Your task to perform on an android device: open app "Indeed Job Search" (install if not already installed) and enter user name: "quixotic@inbox.com" and password: "microphones" Image 0: 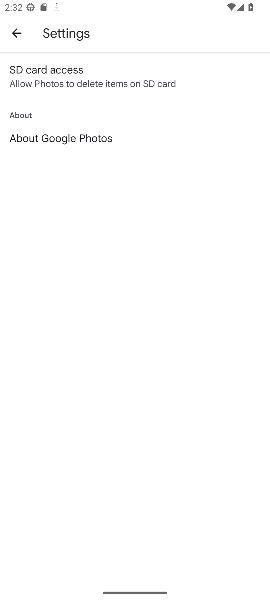
Step 0: press home button
Your task to perform on an android device: open app "Indeed Job Search" (install if not already installed) and enter user name: "quixotic@inbox.com" and password: "microphones" Image 1: 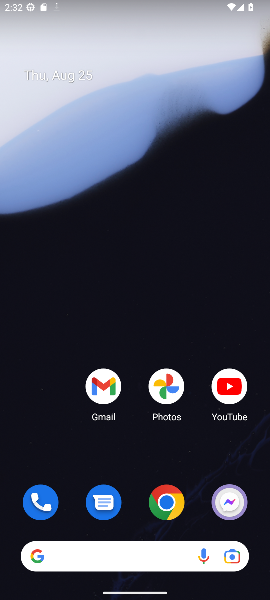
Step 1: drag from (131, 461) to (191, 53)
Your task to perform on an android device: open app "Indeed Job Search" (install if not already installed) and enter user name: "quixotic@inbox.com" and password: "microphones" Image 2: 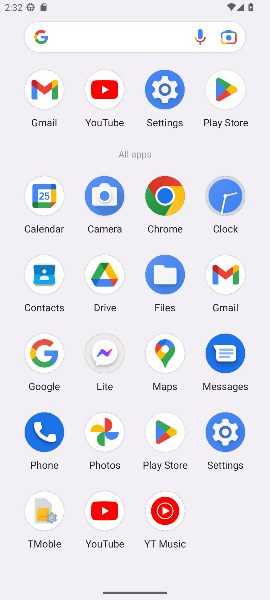
Step 2: click (225, 107)
Your task to perform on an android device: open app "Indeed Job Search" (install if not already installed) and enter user name: "quixotic@inbox.com" and password: "microphones" Image 3: 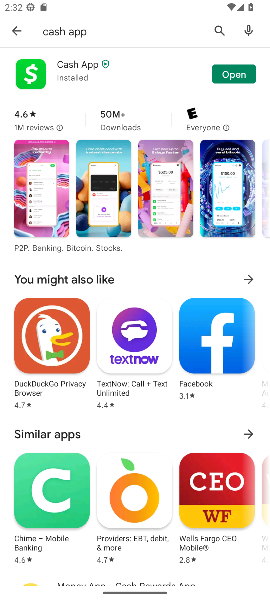
Step 3: click (219, 38)
Your task to perform on an android device: open app "Indeed Job Search" (install if not already installed) and enter user name: "quixotic@inbox.com" and password: "microphones" Image 4: 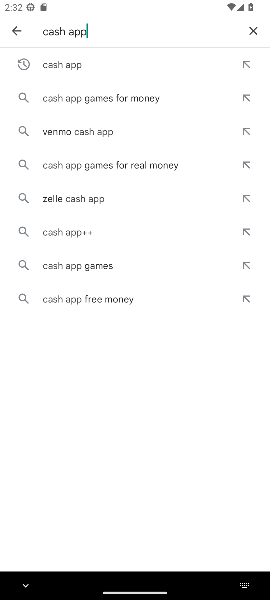
Step 4: click (245, 38)
Your task to perform on an android device: open app "Indeed Job Search" (install if not already installed) and enter user name: "quixotic@inbox.com" and password: "microphones" Image 5: 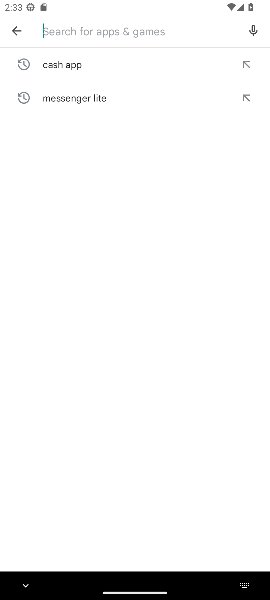
Step 5: type "indeed"
Your task to perform on an android device: open app "Indeed Job Search" (install if not already installed) and enter user name: "quixotic@inbox.com" and password: "microphones" Image 6: 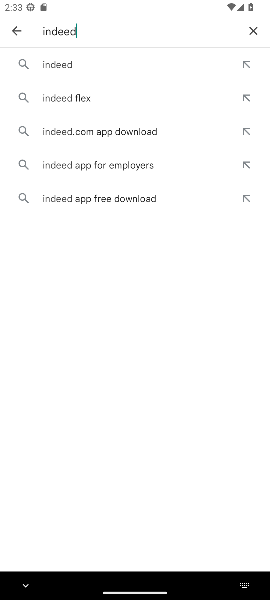
Step 6: click (88, 66)
Your task to perform on an android device: open app "Indeed Job Search" (install if not already installed) and enter user name: "quixotic@inbox.com" and password: "microphones" Image 7: 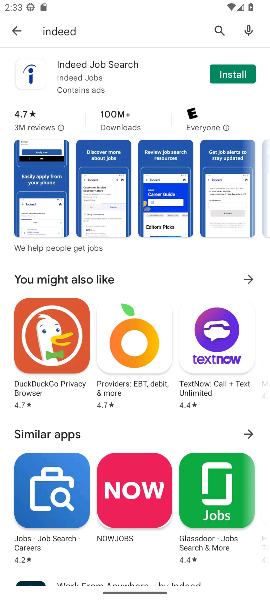
Step 7: click (233, 69)
Your task to perform on an android device: open app "Indeed Job Search" (install if not already installed) and enter user name: "quixotic@inbox.com" and password: "microphones" Image 8: 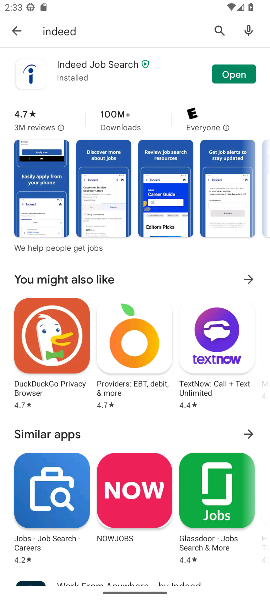
Step 8: click (233, 69)
Your task to perform on an android device: open app "Indeed Job Search" (install if not already installed) and enter user name: "quixotic@inbox.com" and password: "microphones" Image 9: 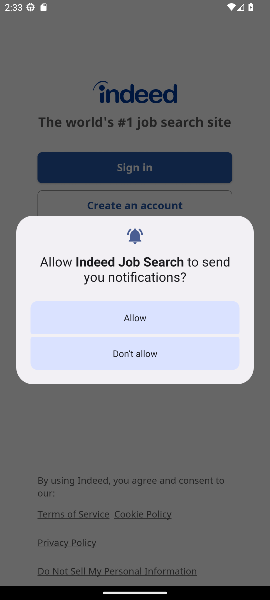
Step 9: click (159, 313)
Your task to perform on an android device: open app "Indeed Job Search" (install if not already installed) and enter user name: "quixotic@inbox.com" and password: "microphones" Image 10: 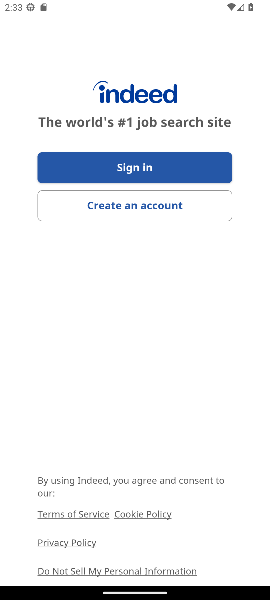
Step 10: click (157, 176)
Your task to perform on an android device: open app "Indeed Job Search" (install if not already installed) and enter user name: "quixotic@inbox.com" and password: "microphones" Image 11: 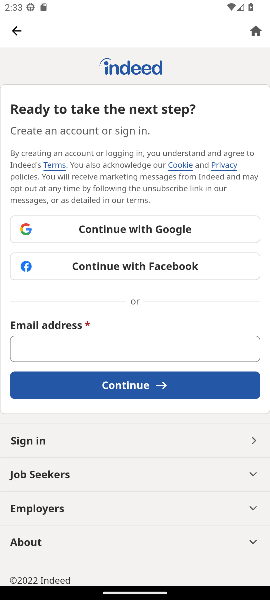
Step 11: click (92, 338)
Your task to perform on an android device: open app "Indeed Job Search" (install if not already installed) and enter user name: "quixotic@inbox.com" and password: "microphones" Image 12: 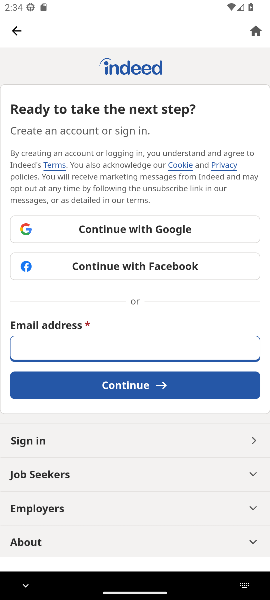
Step 12: type "quixotic@inbox.com"
Your task to perform on an android device: open app "Indeed Job Search" (install if not already installed) and enter user name: "quixotic@inbox.com" and password: "microphones" Image 13: 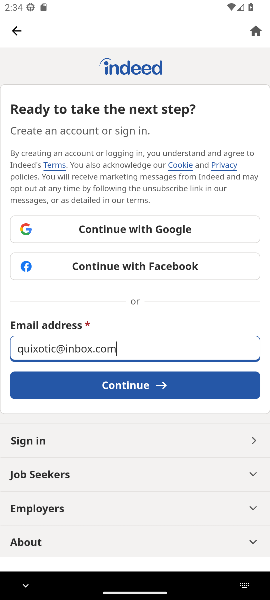
Step 13: click (172, 382)
Your task to perform on an android device: open app "Indeed Job Search" (install if not already installed) and enter user name: "quixotic@inbox.com" and password: "microphones" Image 14: 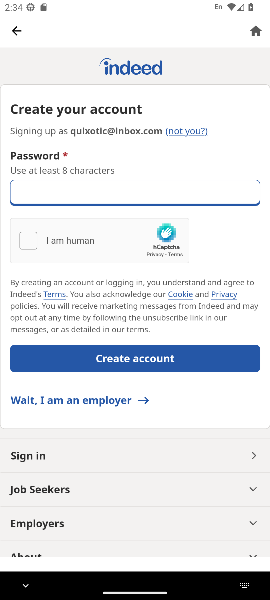
Step 14: type "microphones"
Your task to perform on an android device: open app "Indeed Job Search" (install if not already installed) and enter user name: "quixotic@inbox.com" and password: "microphones" Image 15: 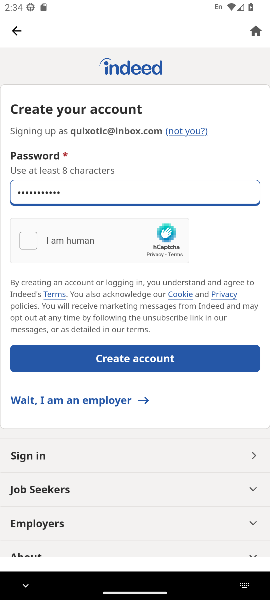
Step 15: click (27, 245)
Your task to perform on an android device: open app "Indeed Job Search" (install if not already installed) and enter user name: "quixotic@inbox.com" and password: "microphones" Image 16: 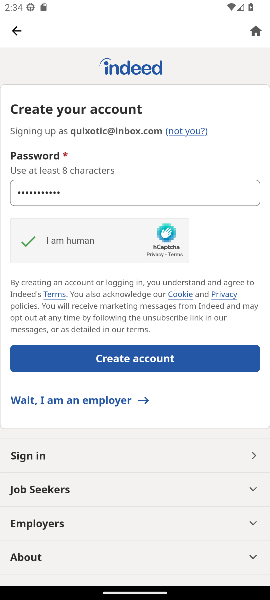
Step 16: click (125, 357)
Your task to perform on an android device: open app "Indeed Job Search" (install if not already installed) and enter user name: "quixotic@inbox.com" and password: "microphones" Image 17: 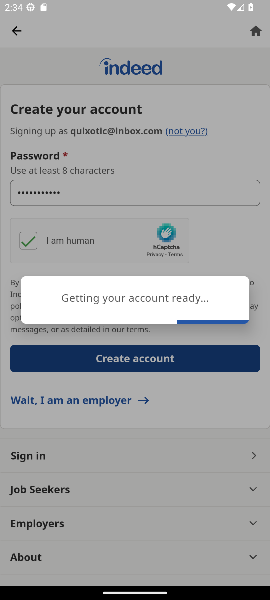
Step 17: click (125, 355)
Your task to perform on an android device: open app "Indeed Job Search" (install if not already installed) and enter user name: "quixotic@inbox.com" and password: "microphones" Image 18: 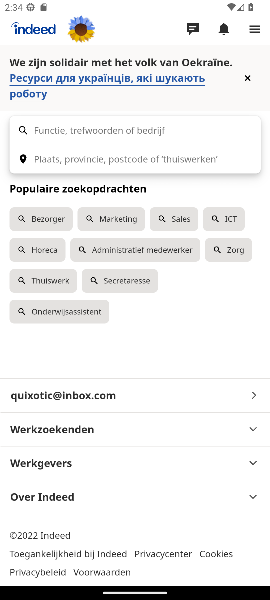
Step 18: task complete